Your task to perform on an android device: delete the emails in spam in the gmail app Image 0: 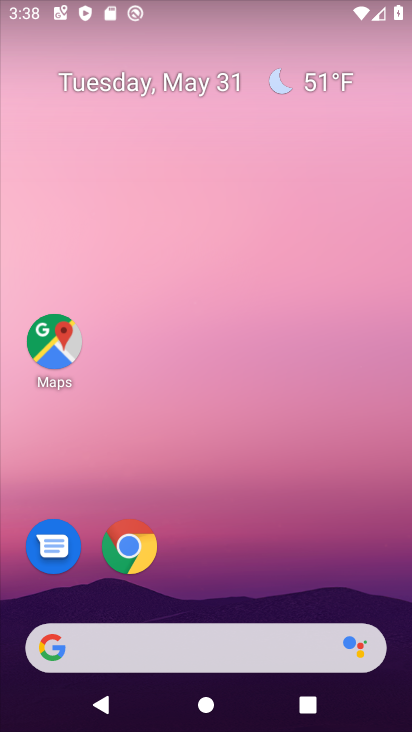
Step 0: drag from (200, 549) to (268, 79)
Your task to perform on an android device: delete the emails in spam in the gmail app Image 1: 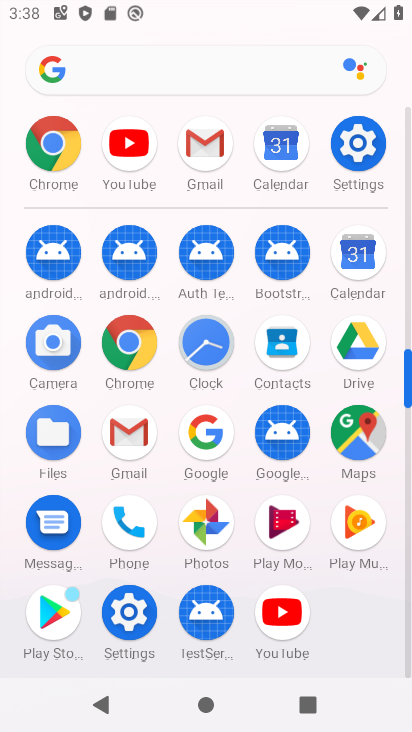
Step 1: click (130, 472)
Your task to perform on an android device: delete the emails in spam in the gmail app Image 2: 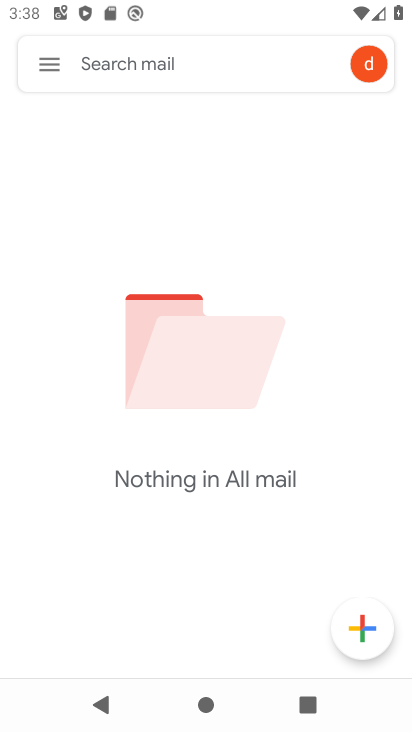
Step 2: click (53, 71)
Your task to perform on an android device: delete the emails in spam in the gmail app Image 3: 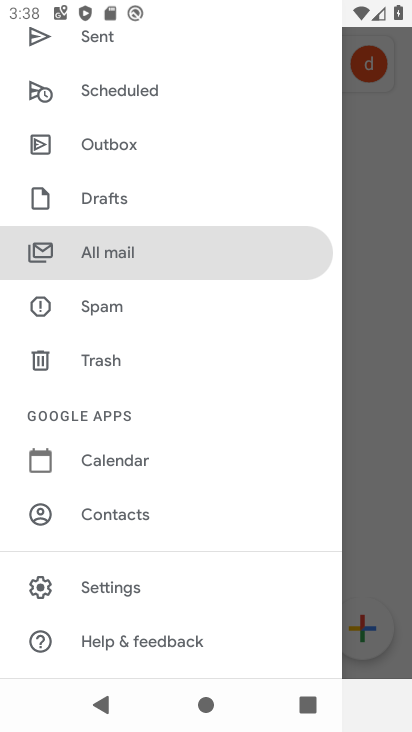
Step 3: click (106, 307)
Your task to perform on an android device: delete the emails in spam in the gmail app Image 4: 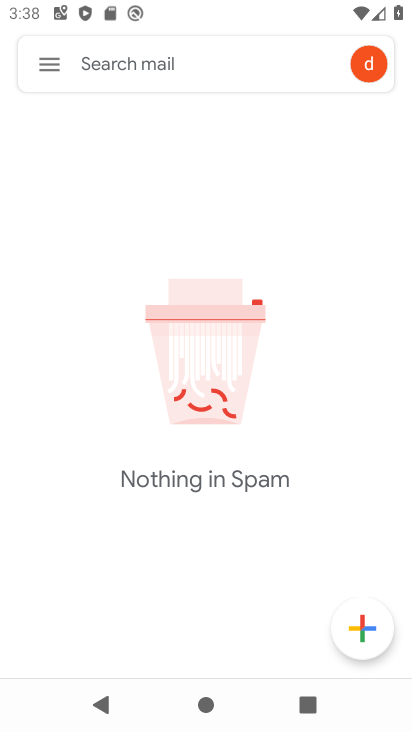
Step 4: task complete